Your task to perform on an android device: What's a good restaurant in Houston? Image 0: 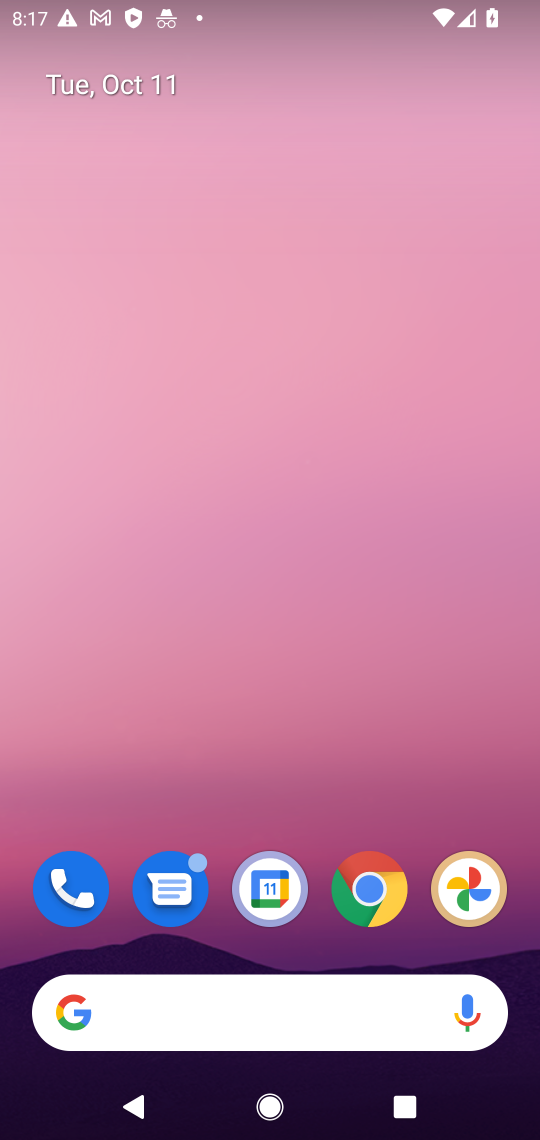
Step 0: click (152, 1019)
Your task to perform on an android device: What's a good restaurant in Houston? Image 1: 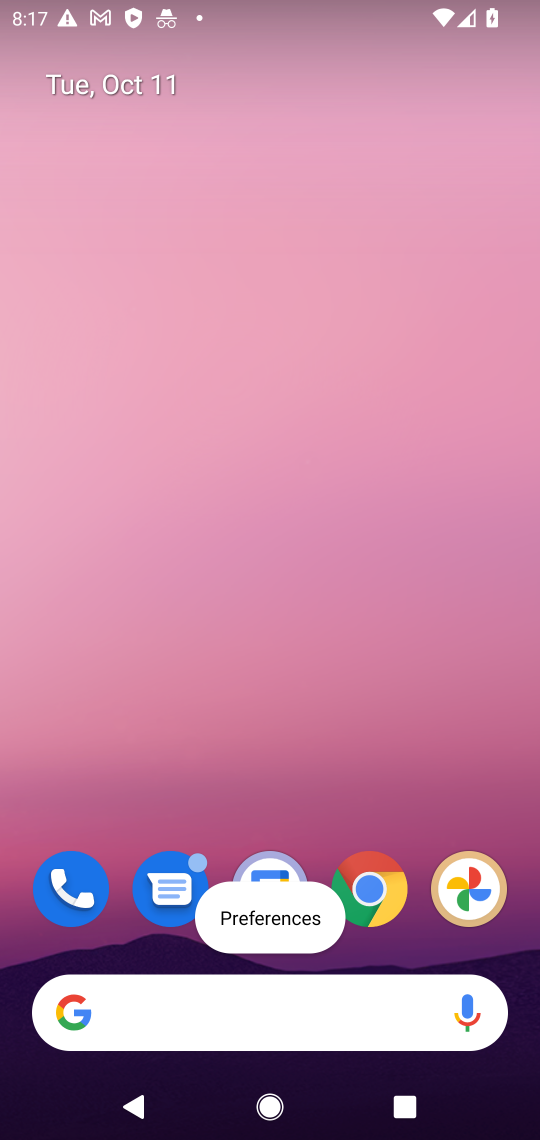
Step 1: click (258, 1016)
Your task to perform on an android device: What's a good restaurant in Houston? Image 2: 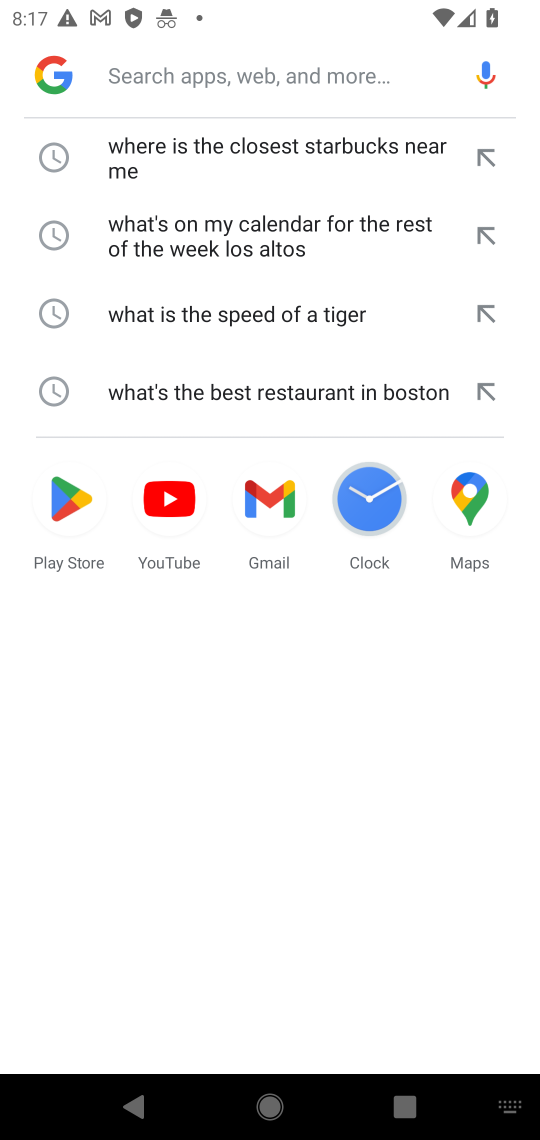
Step 2: click (222, 78)
Your task to perform on an android device: What's a good restaurant in Houston? Image 3: 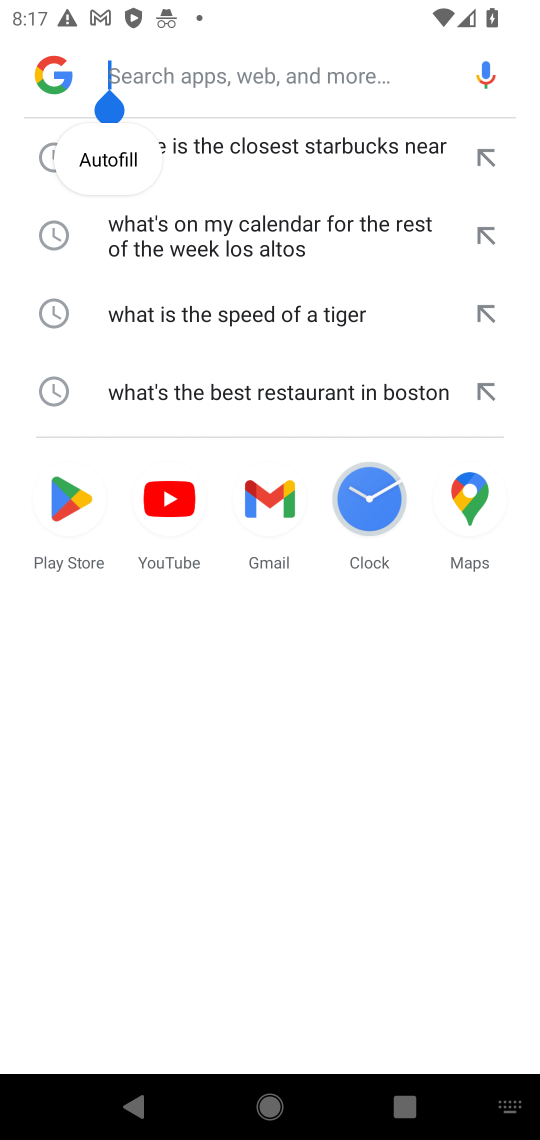
Step 3: type "What's a good restaurant in Houston?"
Your task to perform on an android device: What's a good restaurant in Houston? Image 4: 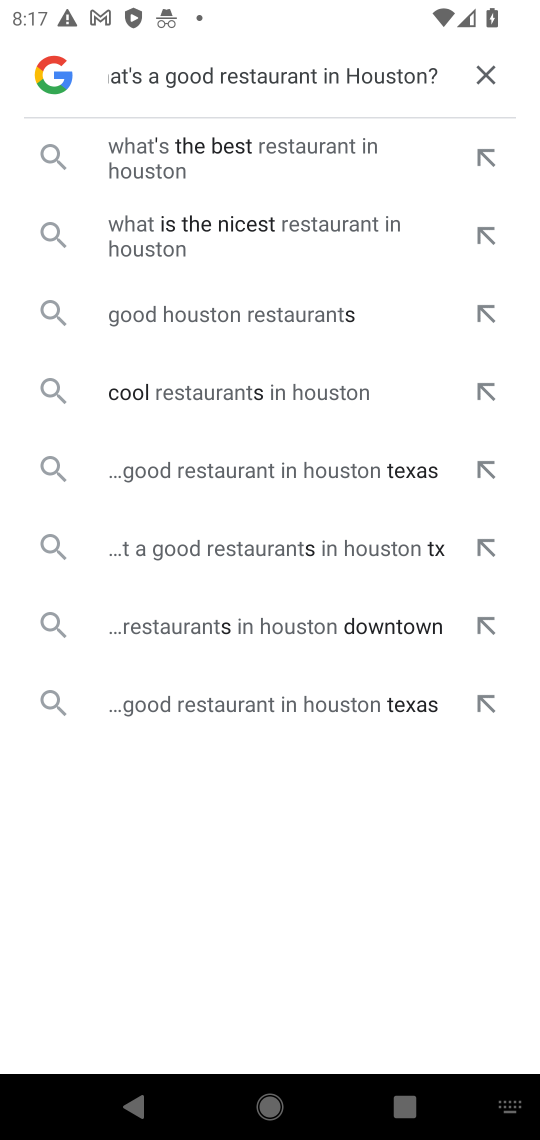
Step 4: click (248, 161)
Your task to perform on an android device: What's a good restaurant in Houston? Image 5: 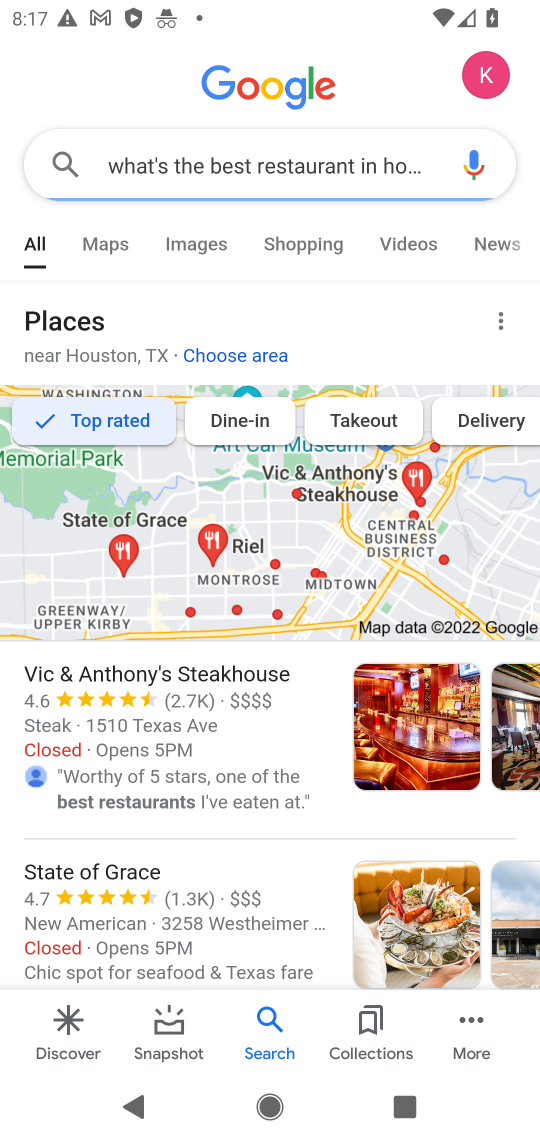
Step 5: task complete